Your task to perform on an android device: change the clock display to show seconds Image 0: 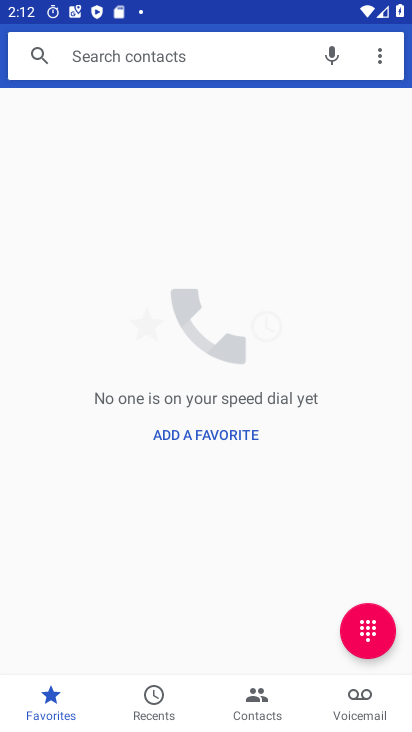
Step 0: press home button
Your task to perform on an android device: change the clock display to show seconds Image 1: 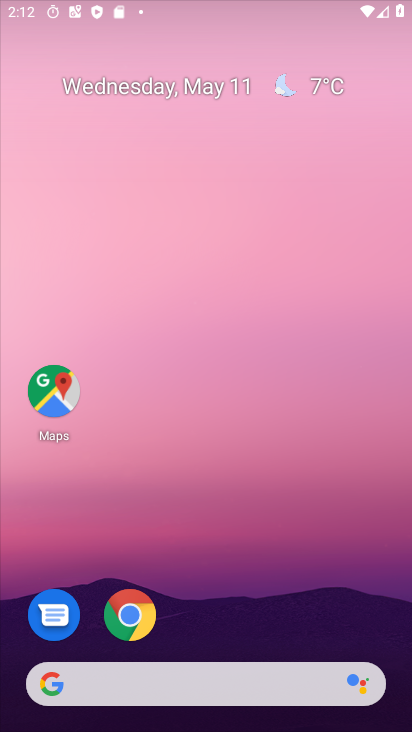
Step 1: drag from (217, 690) to (203, 246)
Your task to perform on an android device: change the clock display to show seconds Image 2: 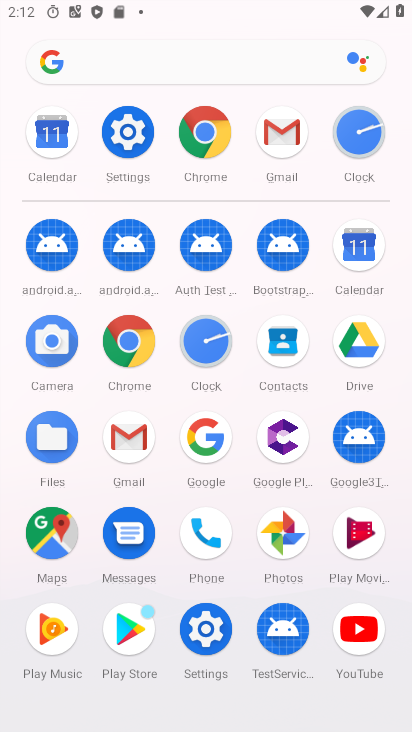
Step 2: click (215, 340)
Your task to perform on an android device: change the clock display to show seconds Image 3: 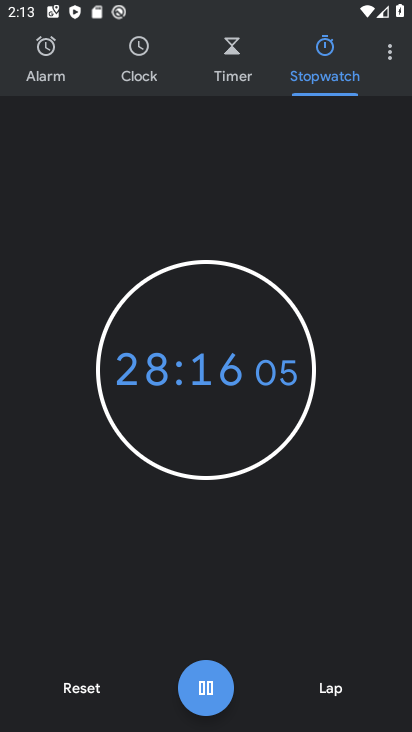
Step 3: click (386, 67)
Your task to perform on an android device: change the clock display to show seconds Image 4: 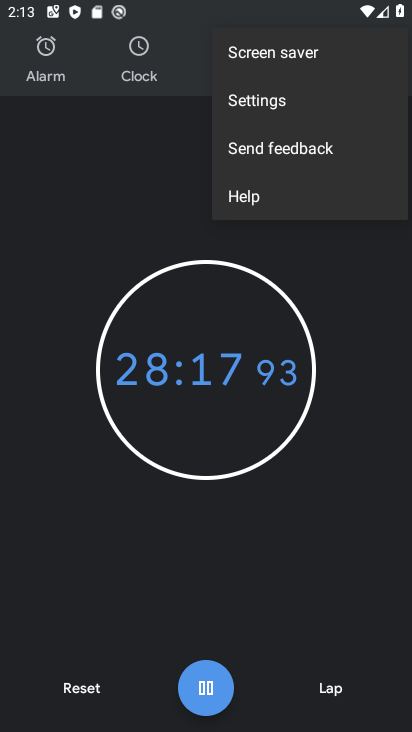
Step 4: click (298, 99)
Your task to perform on an android device: change the clock display to show seconds Image 5: 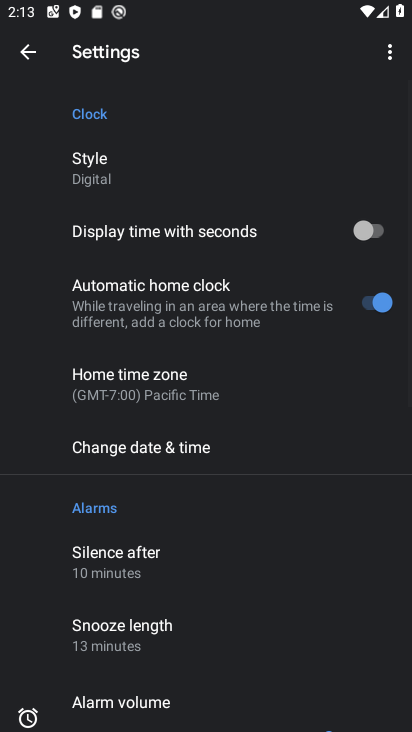
Step 5: click (386, 213)
Your task to perform on an android device: change the clock display to show seconds Image 6: 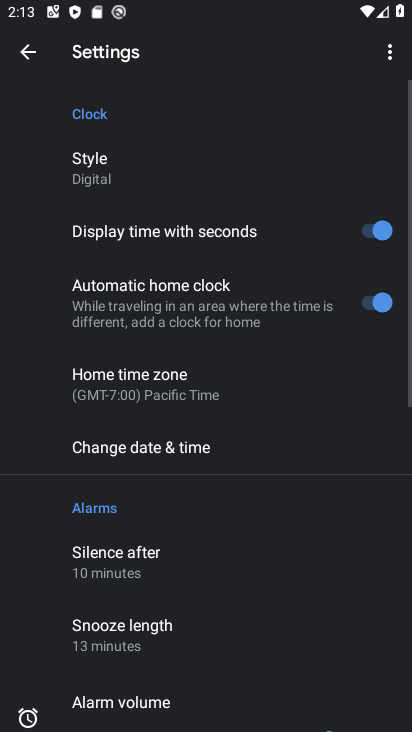
Step 6: task complete